Your task to perform on an android device: What is the recent news? Image 0: 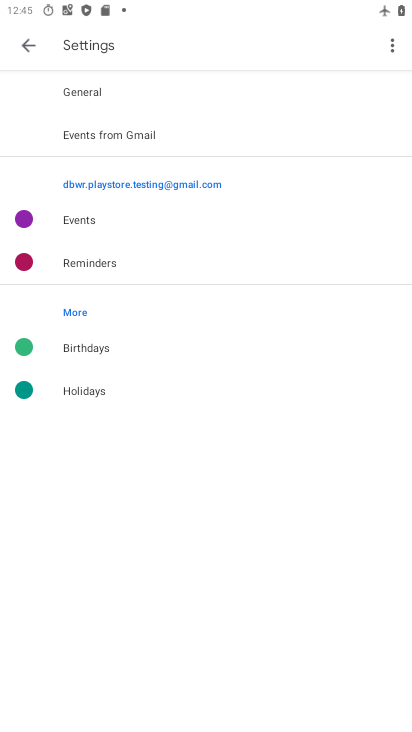
Step 0: press home button
Your task to perform on an android device: What is the recent news? Image 1: 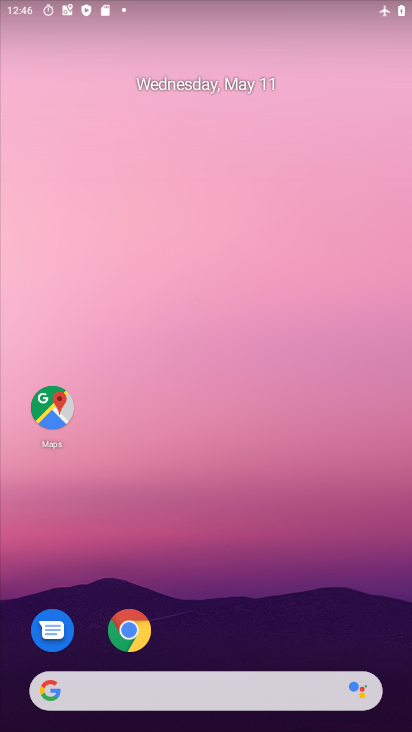
Step 1: drag from (309, 575) to (352, 131)
Your task to perform on an android device: What is the recent news? Image 2: 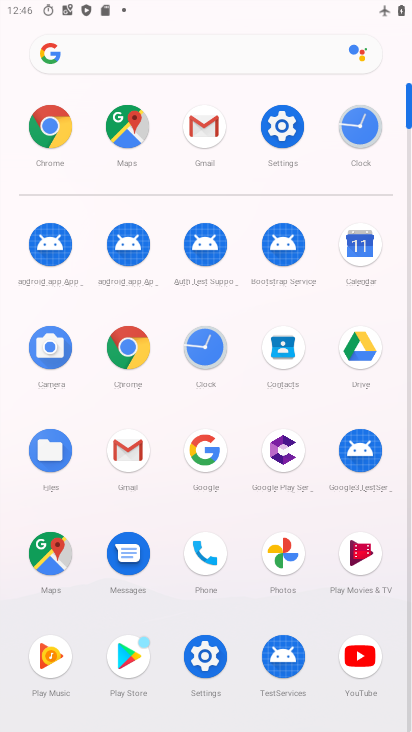
Step 2: click (133, 346)
Your task to perform on an android device: What is the recent news? Image 3: 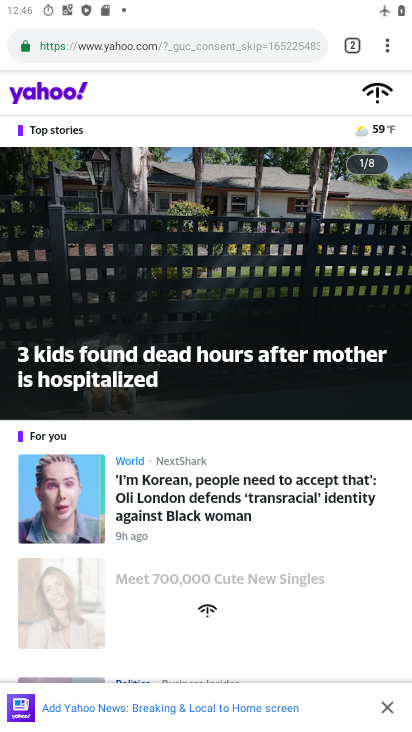
Step 3: click (236, 43)
Your task to perform on an android device: What is the recent news? Image 4: 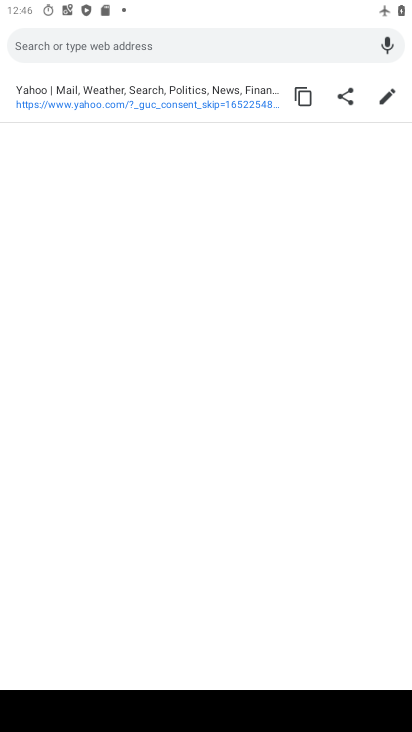
Step 4: type "news"
Your task to perform on an android device: What is the recent news? Image 5: 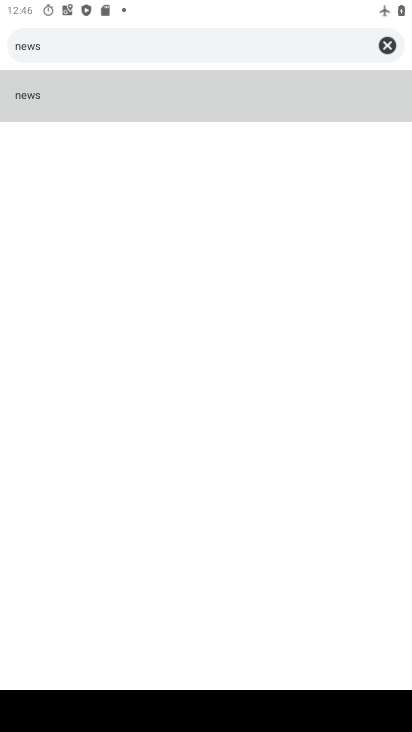
Step 5: click (65, 101)
Your task to perform on an android device: What is the recent news? Image 6: 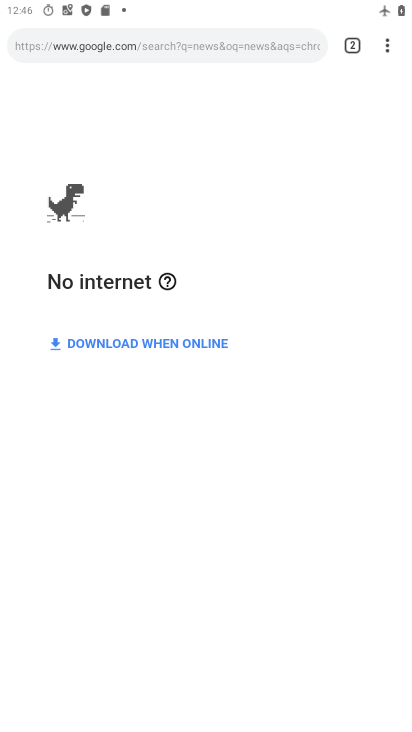
Step 6: task complete